Your task to perform on an android device: add a contact Image 0: 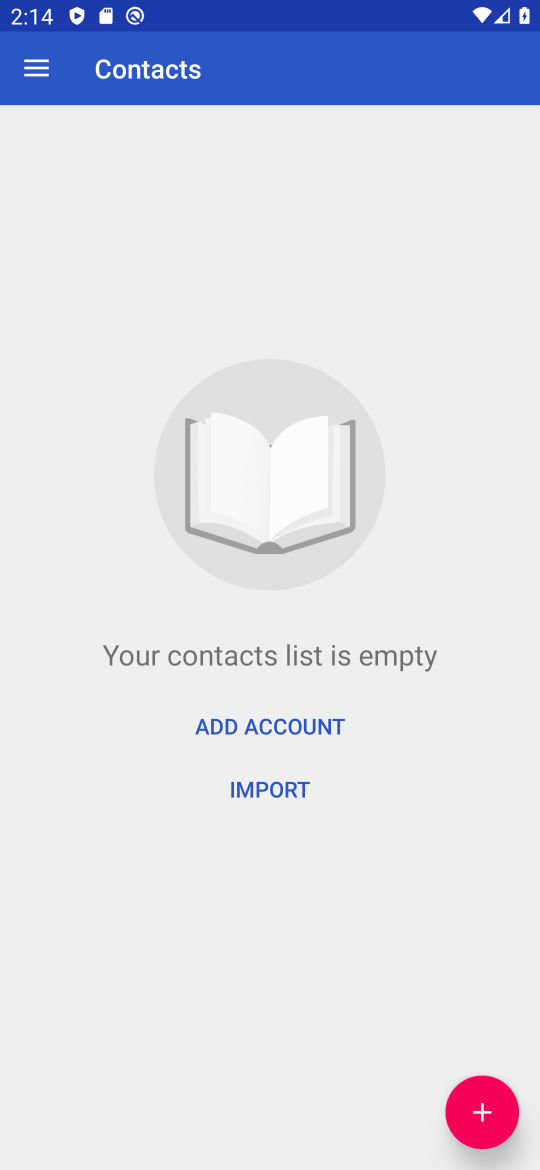
Step 0: press home button
Your task to perform on an android device: add a contact Image 1: 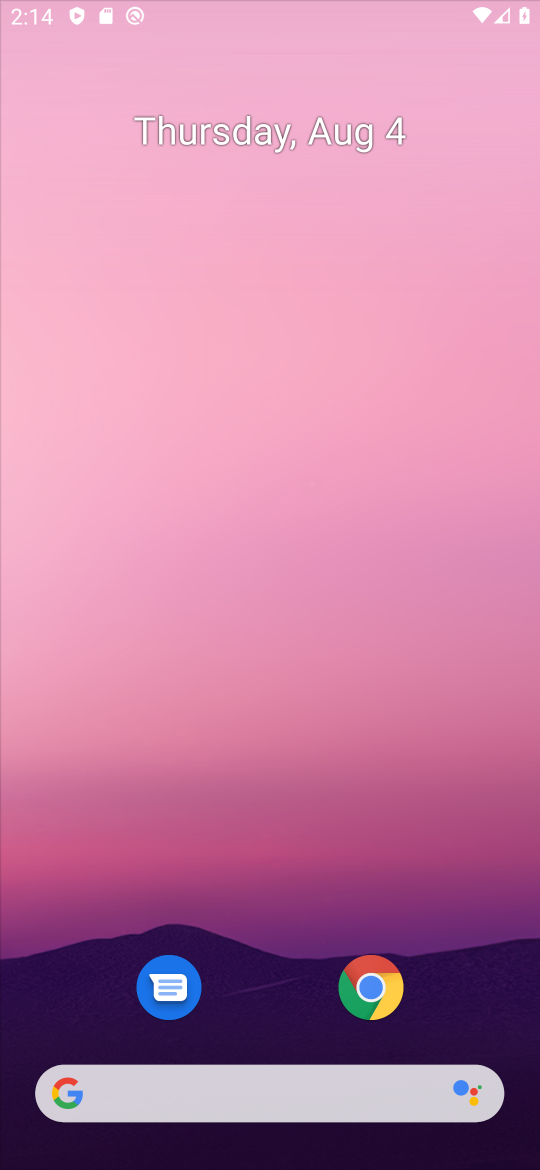
Step 1: drag from (495, 991) to (223, 50)
Your task to perform on an android device: add a contact Image 2: 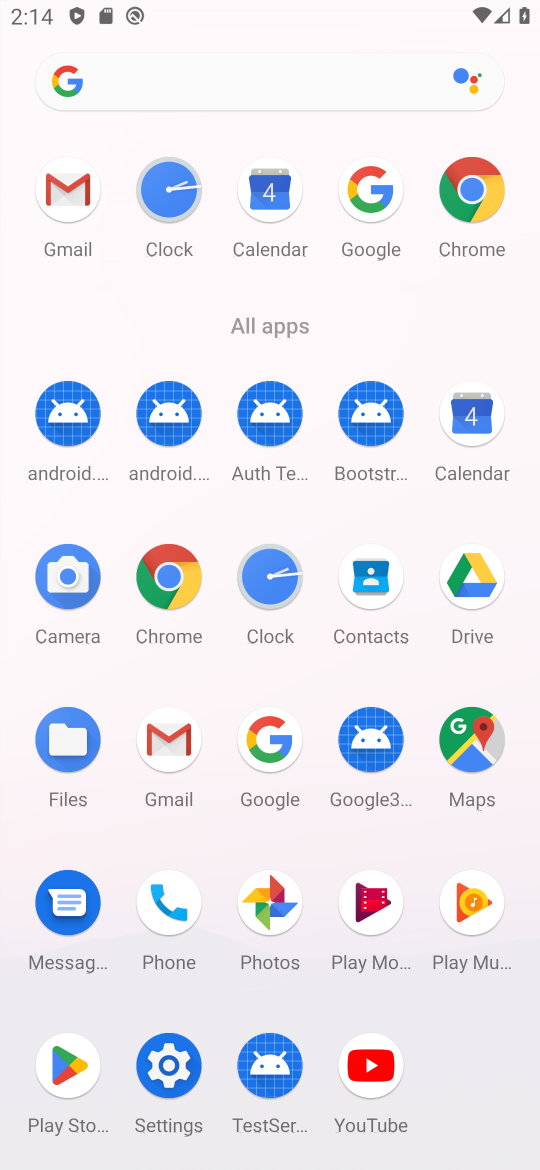
Step 2: click (365, 601)
Your task to perform on an android device: add a contact Image 3: 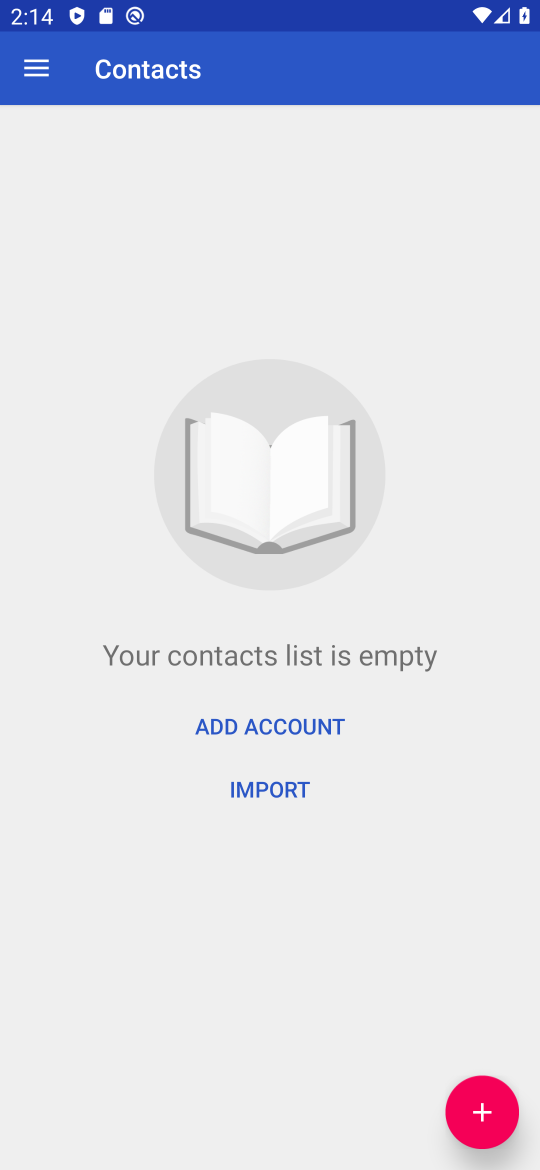
Step 3: click (477, 1120)
Your task to perform on an android device: add a contact Image 4: 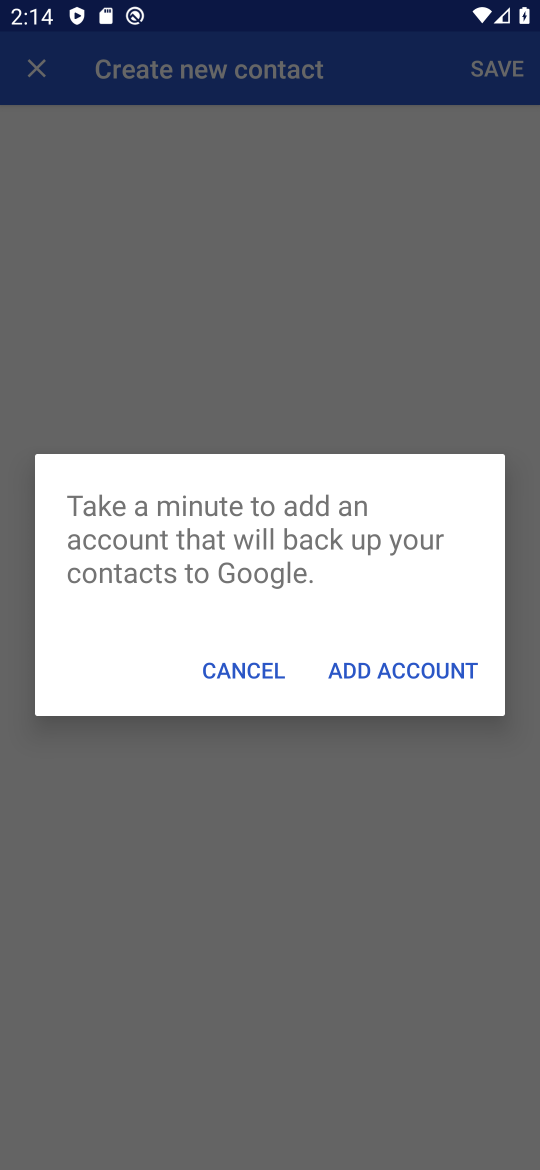
Step 4: click (404, 672)
Your task to perform on an android device: add a contact Image 5: 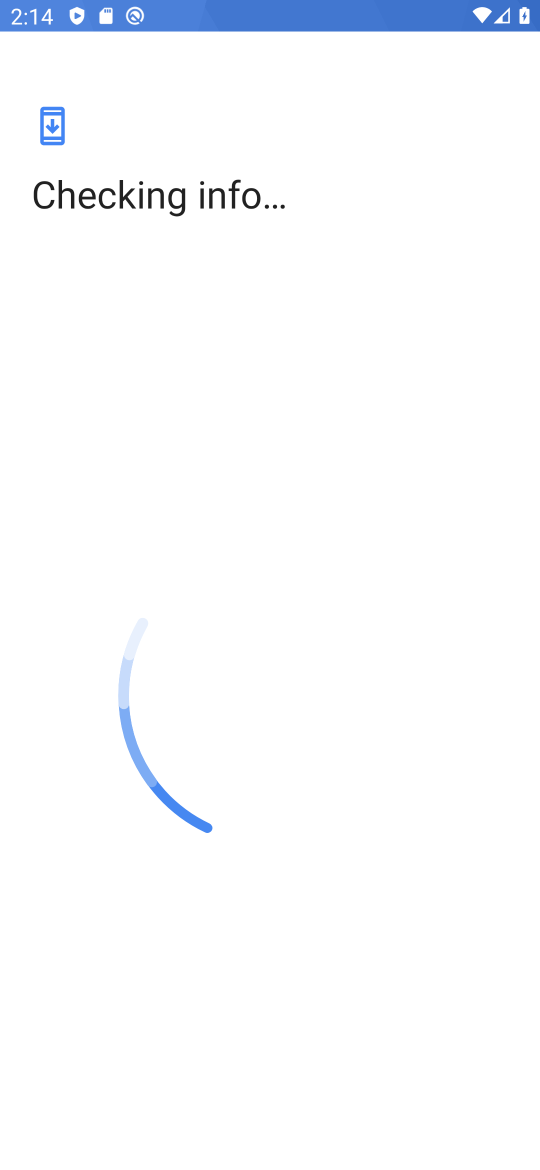
Step 5: task complete